Your task to perform on an android device: change text size in settings app Image 0: 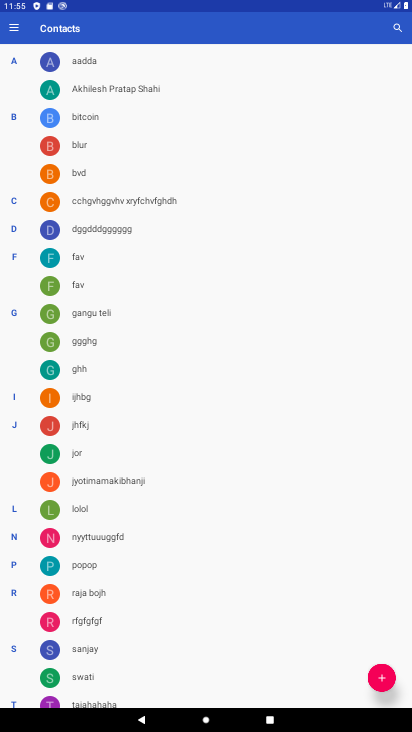
Step 0: press home button
Your task to perform on an android device: change text size in settings app Image 1: 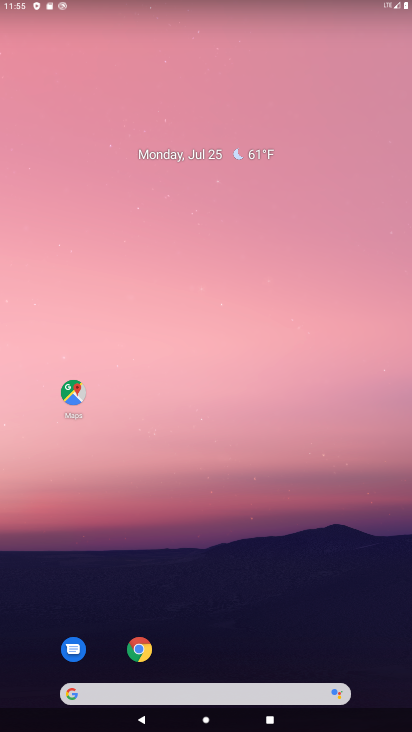
Step 1: drag from (248, 643) to (167, 73)
Your task to perform on an android device: change text size in settings app Image 2: 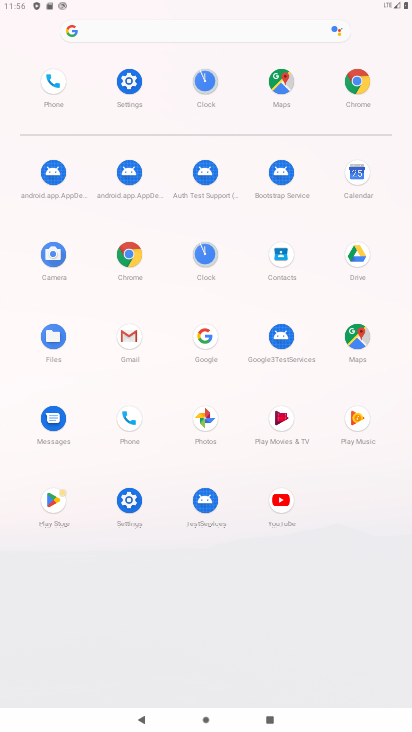
Step 2: click (128, 500)
Your task to perform on an android device: change text size in settings app Image 3: 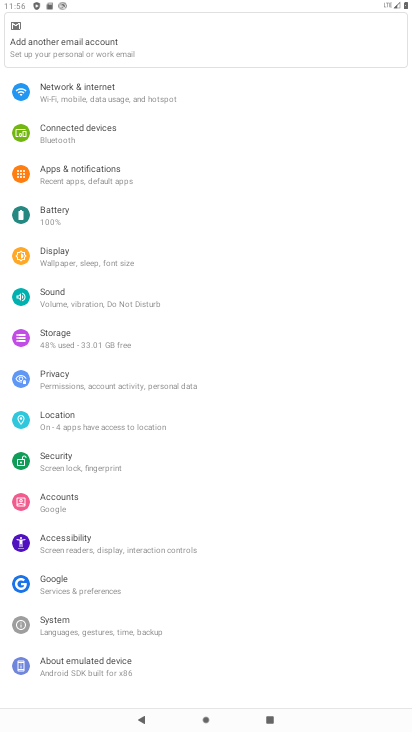
Step 3: click (56, 259)
Your task to perform on an android device: change text size in settings app Image 4: 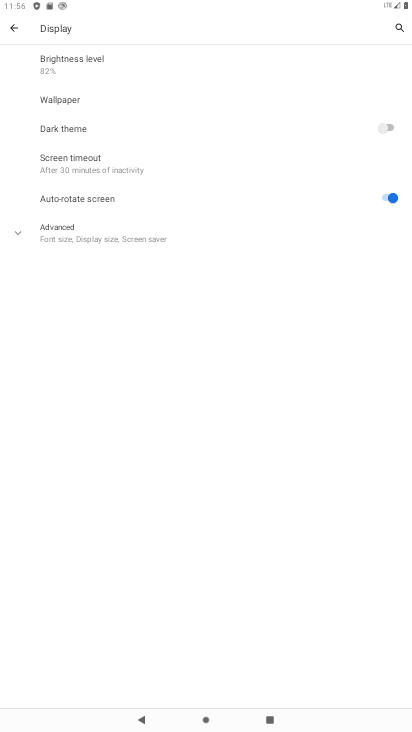
Step 4: click (18, 238)
Your task to perform on an android device: change text size in settings app Image 5: 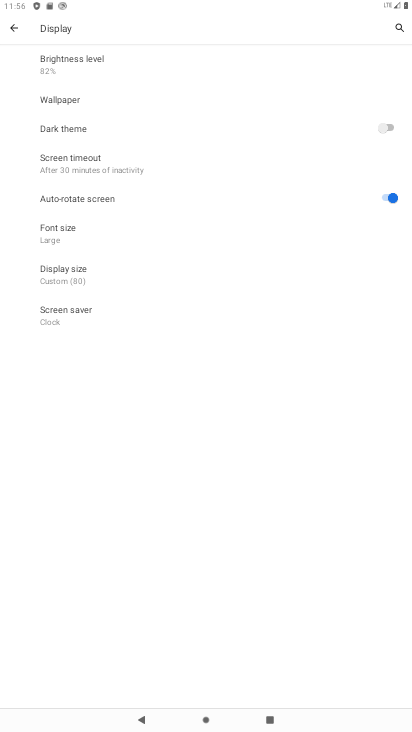
Step 5: click (77, 242)
Your task to perform on an android device: change text size in settings app Image 6: 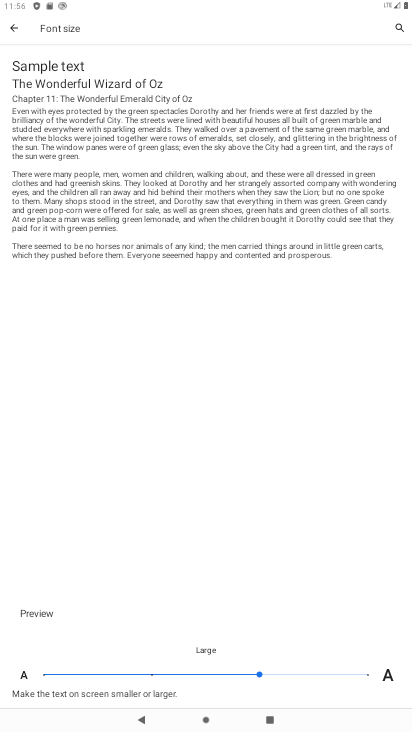
Step 6: click (369, 674)
Your task to perform on an android device: change text size in settings app Image 7: 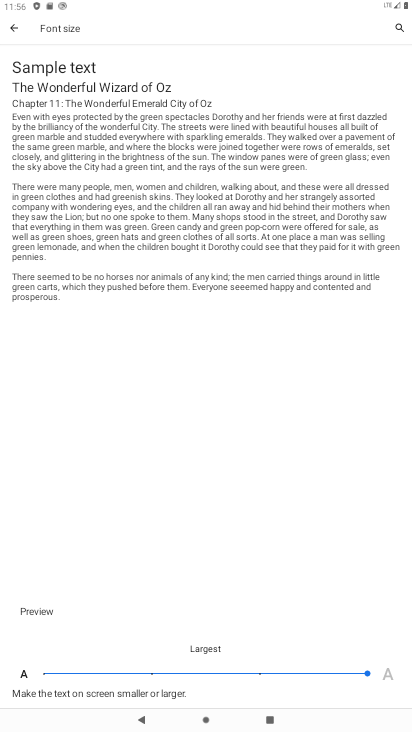
Step 7: task complete